Your task to perform on an android device: Go to battery settings Image 0: 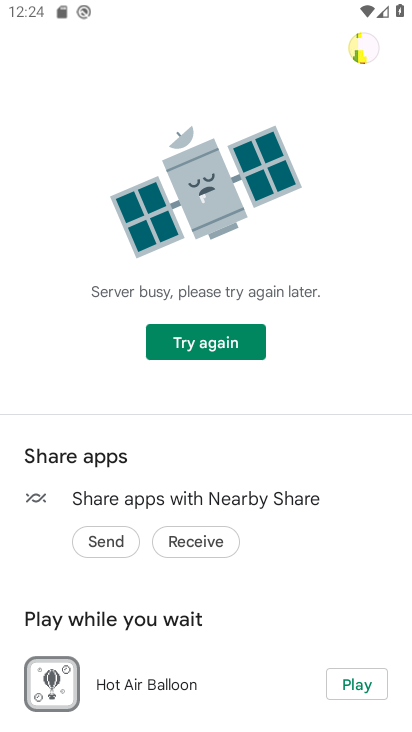
Step 0: press home button
Your task to perform on an android device: Go to battery settings Image 1: 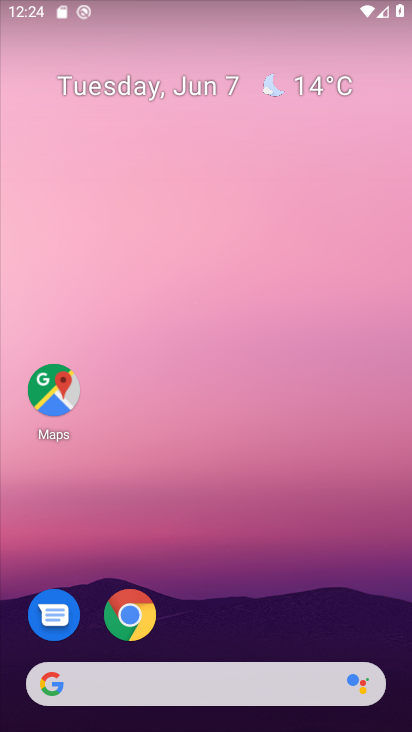
Step 1: drag from (205, 375) to (255, 95)
Your task to perform on an android device: Go to battery settings Image 2: 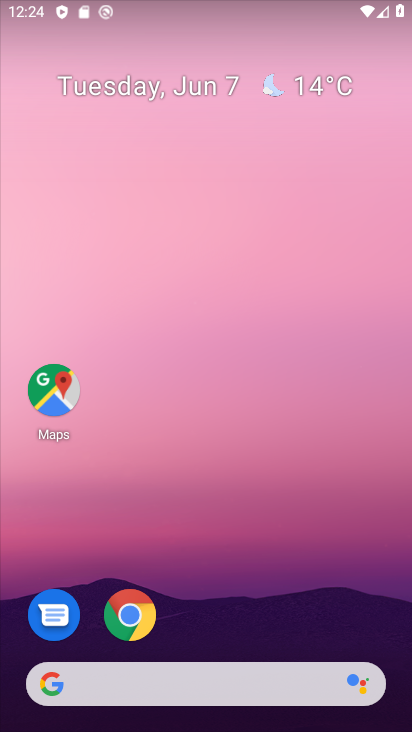
Step 2: drag from (233, 510) to (220, 10)
Your task to perform on an android device: Go to battery settings Image 3: 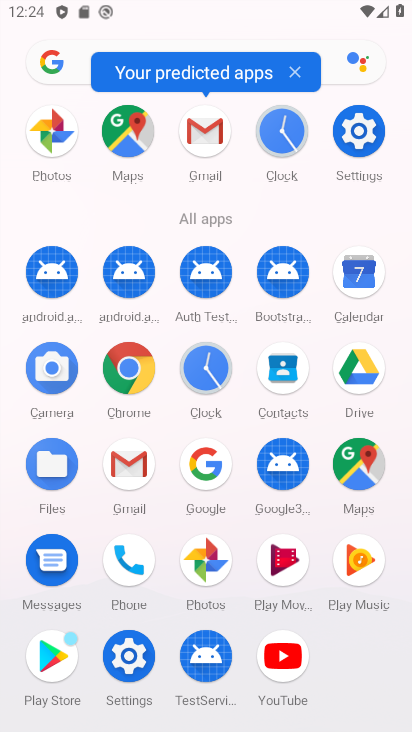
Step 3: click (359, 131)
Your task to perform on an android device: Go to battery settings Image 4: 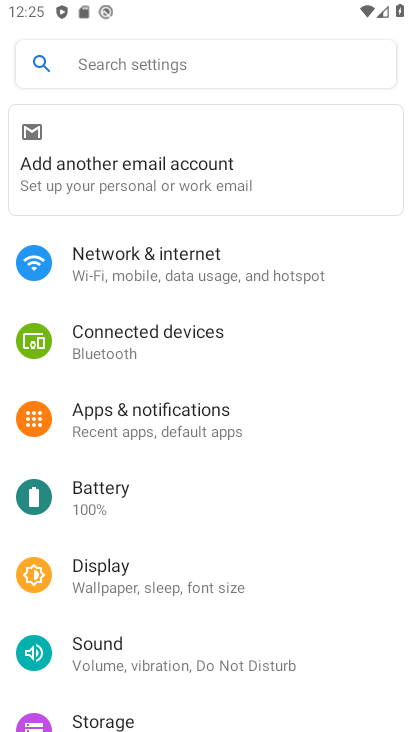
Step 4: click (111, 494)
Your task to perform on an android device: Go to battery settings Image 5: 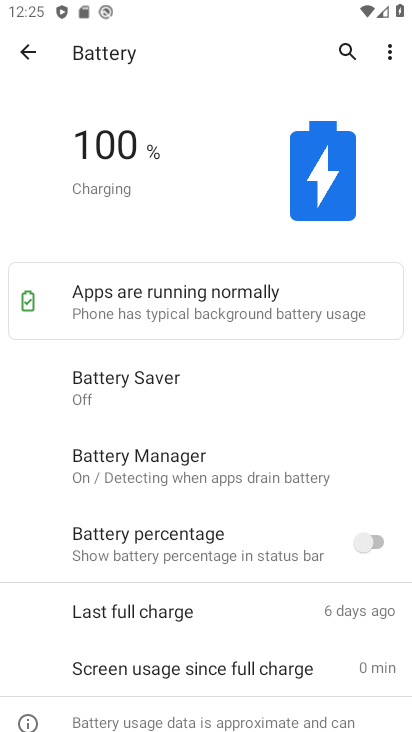
Step 5: task complete